Your task to perform on an android device: Play the last video I watched on Youtube Image 0: 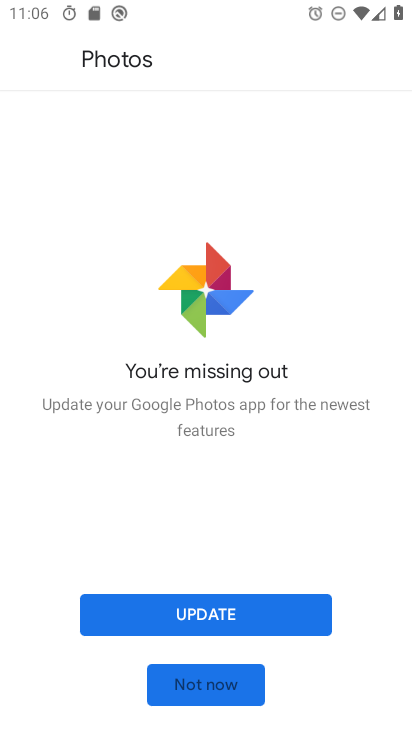
Step 0: press home button
Your task to perform on an android device: Play the last video I watched on Youtube Image 1: 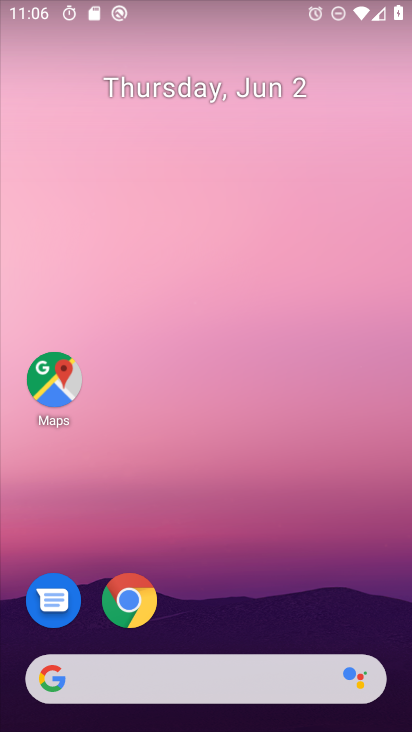
Step 1: drag from (242, 562) to (210, 65)
Your task to perform on an android device: Play the last video I watched on Youtube Image 2: 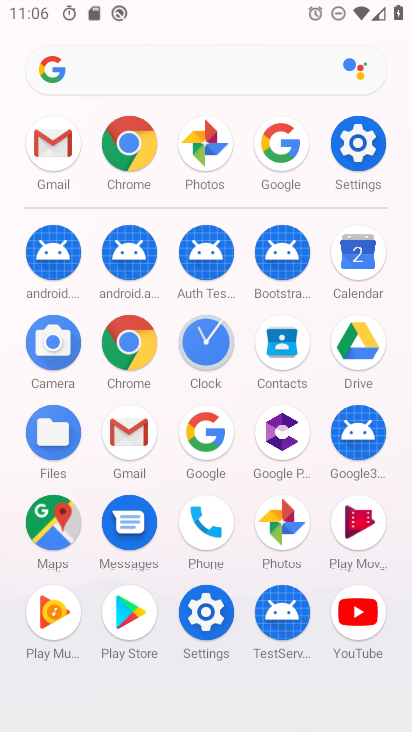
Step 2: click (358, 604)
Your task to perform on an android device: Play the last video I watched on Youtube Image 3: 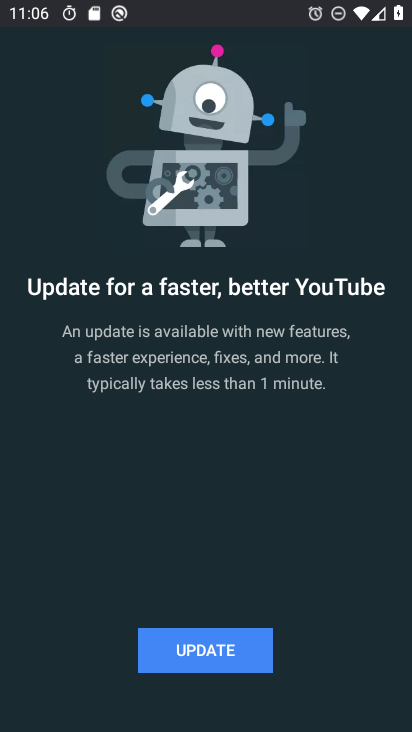
Step 3: click (187, 645)
Your task to perform on an android device: Play the last video I watched on Youtube Image 4: 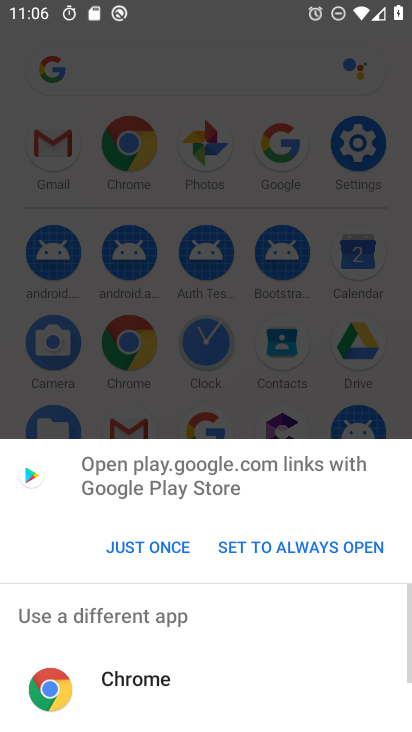
Step 4: click (141, 560)
Your task to perform on an android device: Play the last video I watched on Youtube Image 5: 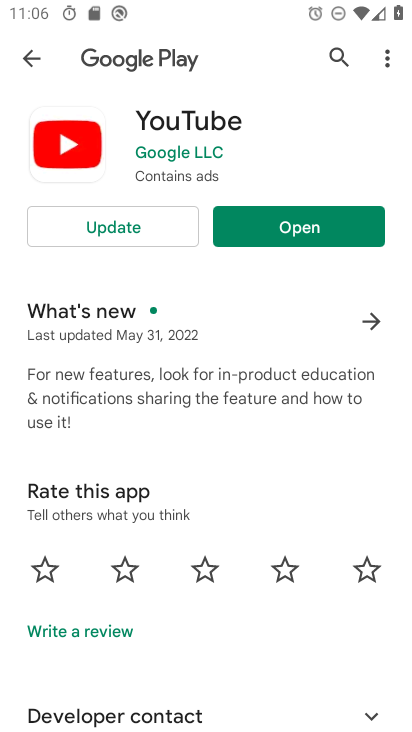
Step 5: click (128, 227)
Your task to perform on an android device: Play the last video I watched on Youtube Image 6: 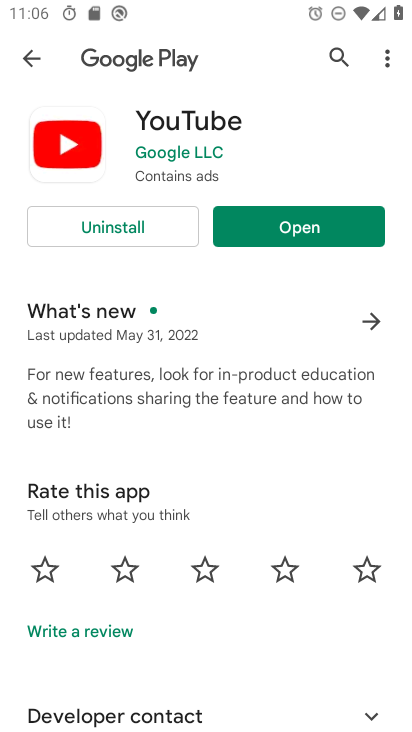
Step 6: click (283, 232)
Your task to perform on an android device: Play the last video I watched on Youtube Image 7: 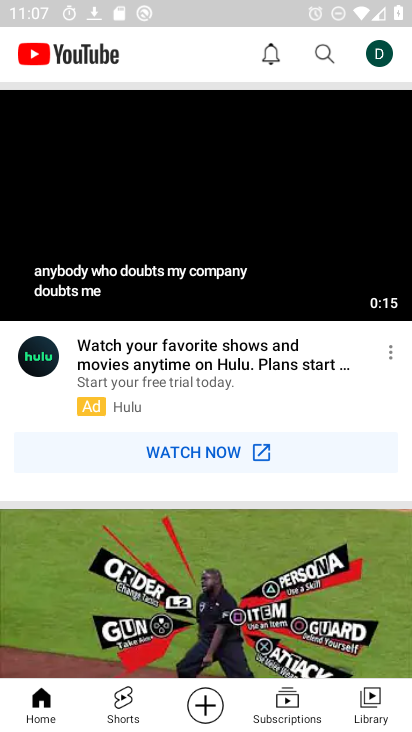
Step 7: click (322, 54)
Your task to perform on an android device: Play the last video I watched on Youtube Image 8: 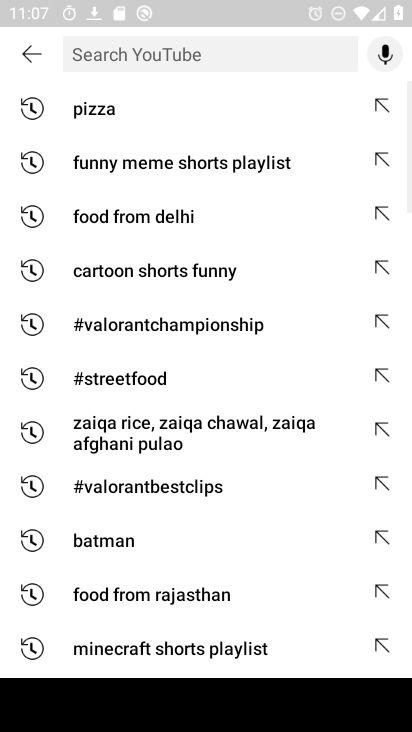
Step 8: click (137, 114)
Your task to perform on an android device: Play the last video I watched on Youtube Image 9: 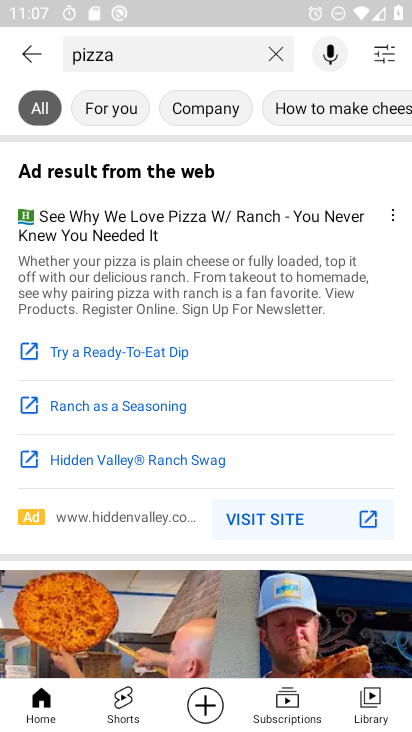
Step 9: drag from (188, 598) to (199, 271)
Your task to perform on an android device: Play the last video I watched on Youtube Image 10: 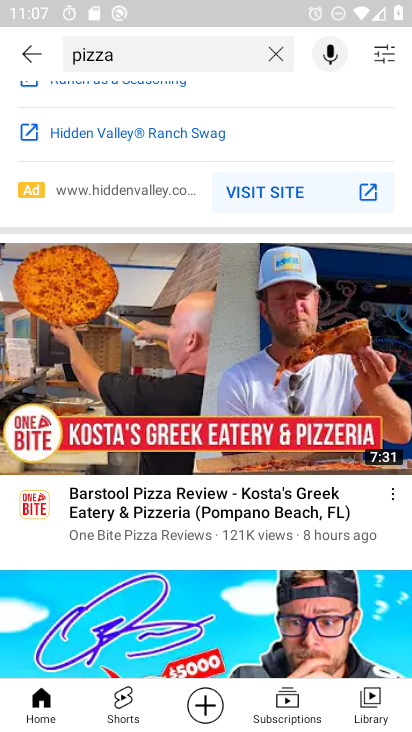
Step 10: click (185, 368)
Your task to perform on an android device: Play the last video I watched on Youtube Image 11: 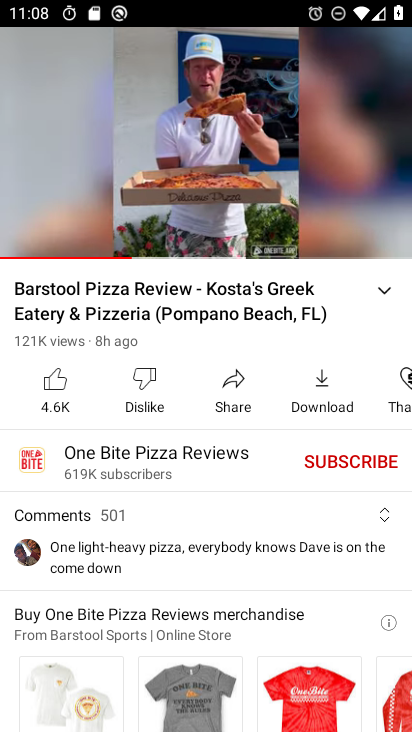
Step 11: task complete